Your task to perform on an android device: Open network settings Image 0: 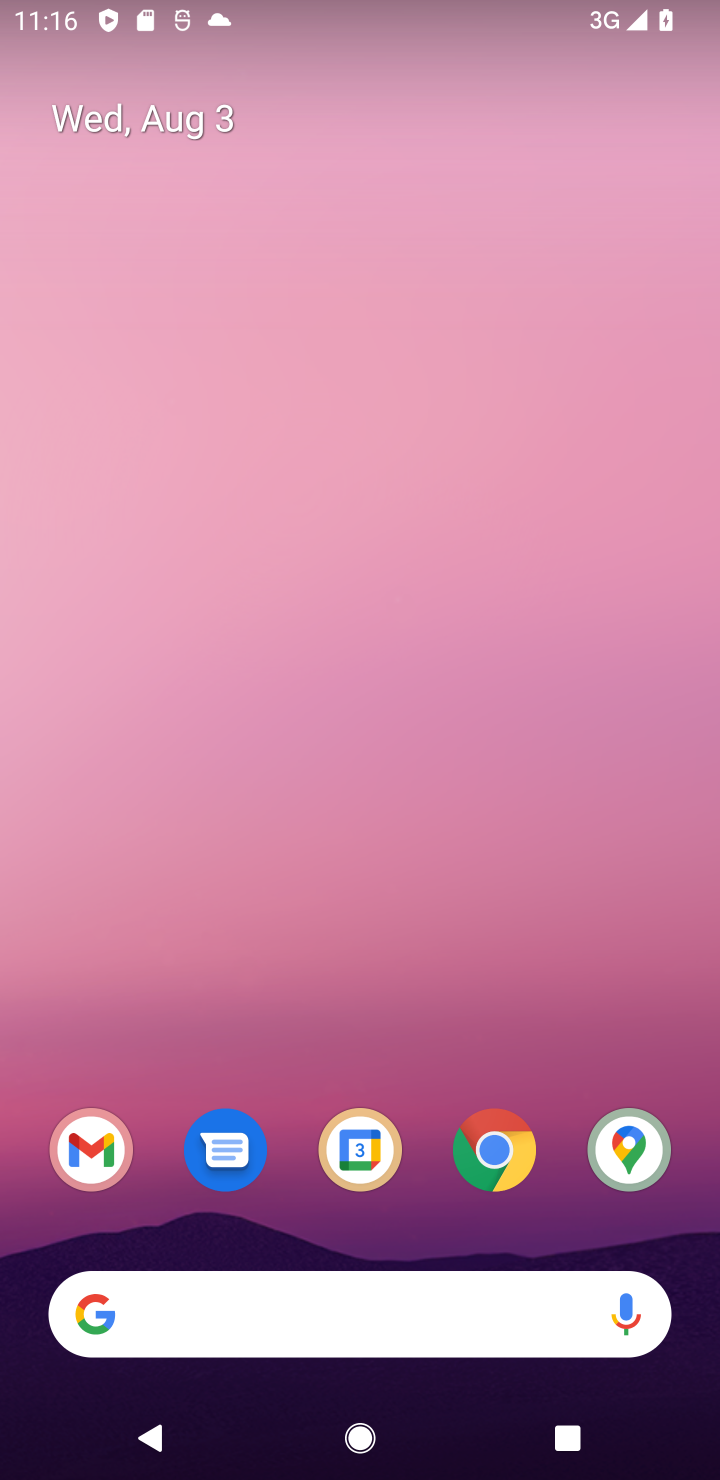
Step 0: press home button
Your task to perform on an android device: Open network settings Image 1: 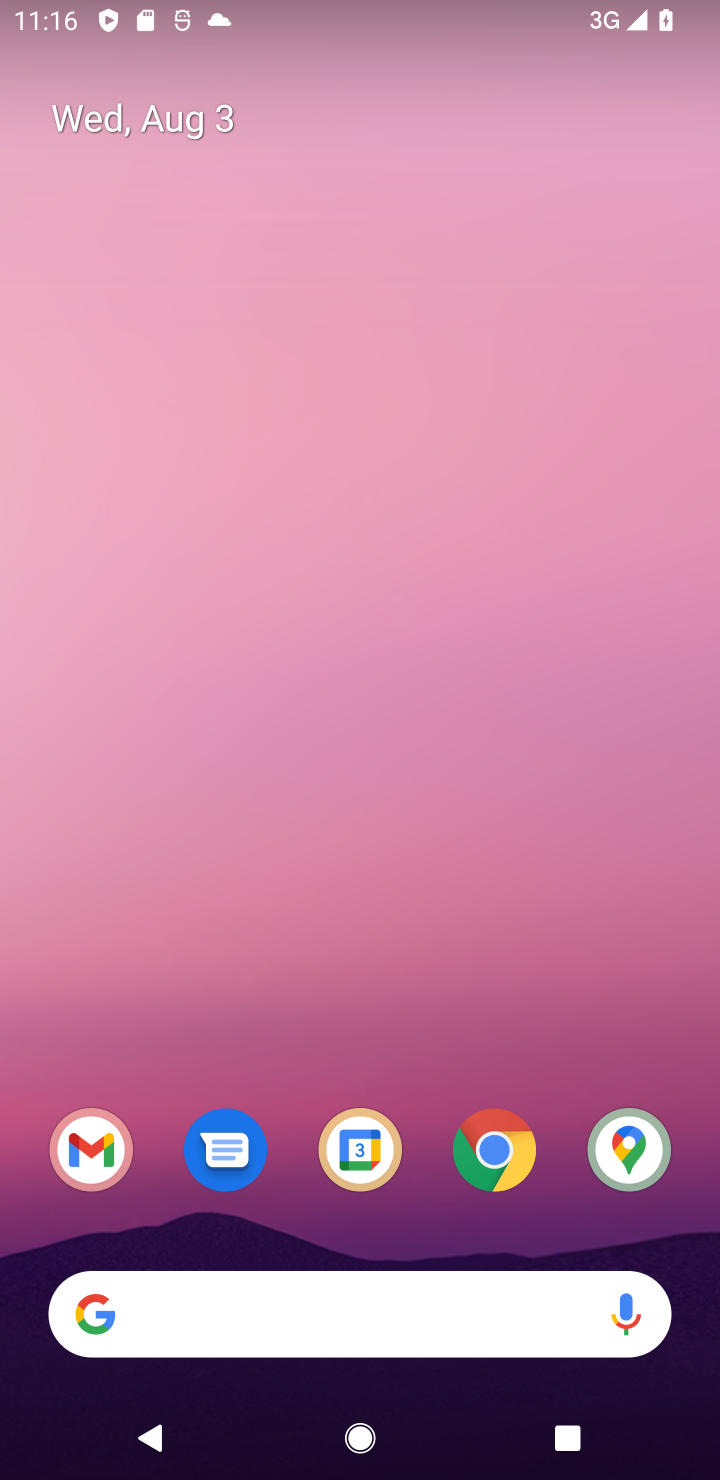
Step 1: drag from (555, 1143) to (572, 408)
Your task to perform on an android device: Open network settings Image 2: 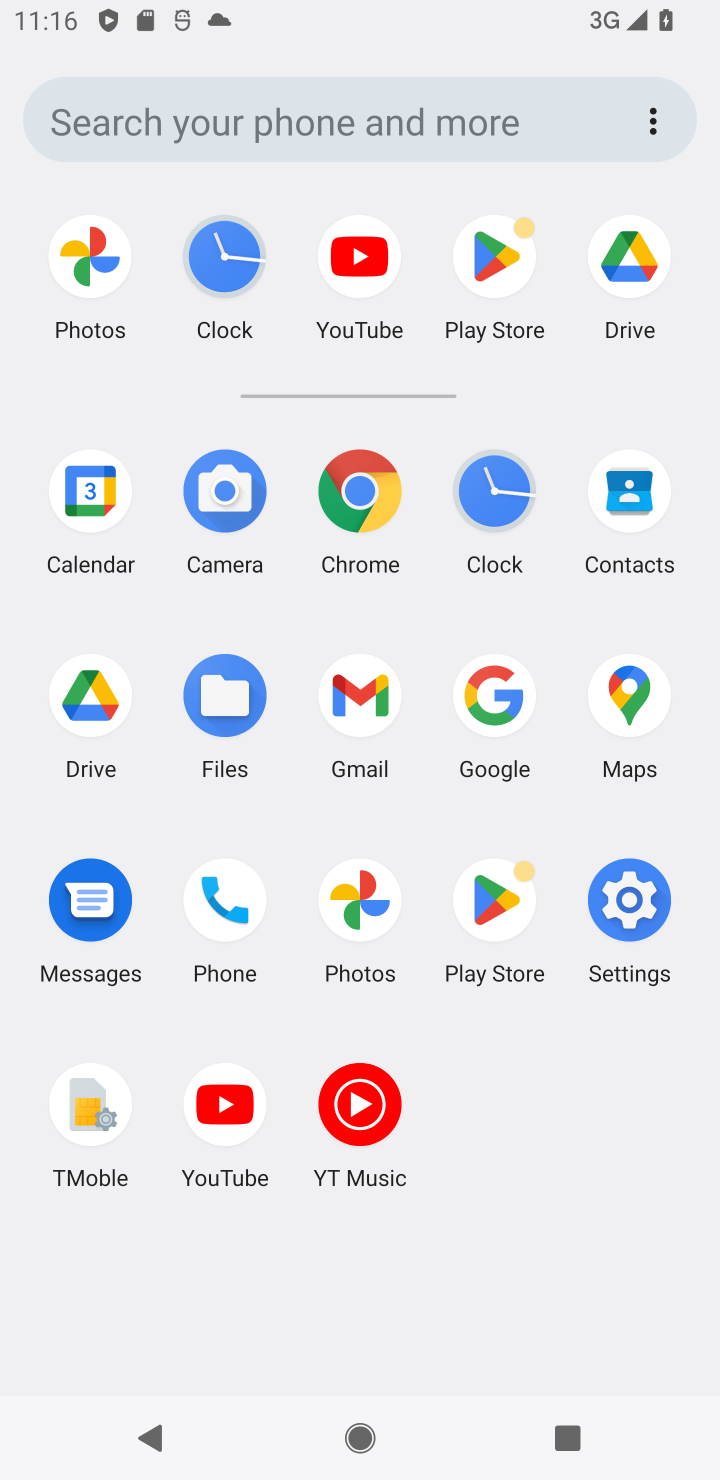
Step 2: click (624, 908)
Your task to perform on an android device: Open network settings Image 3: 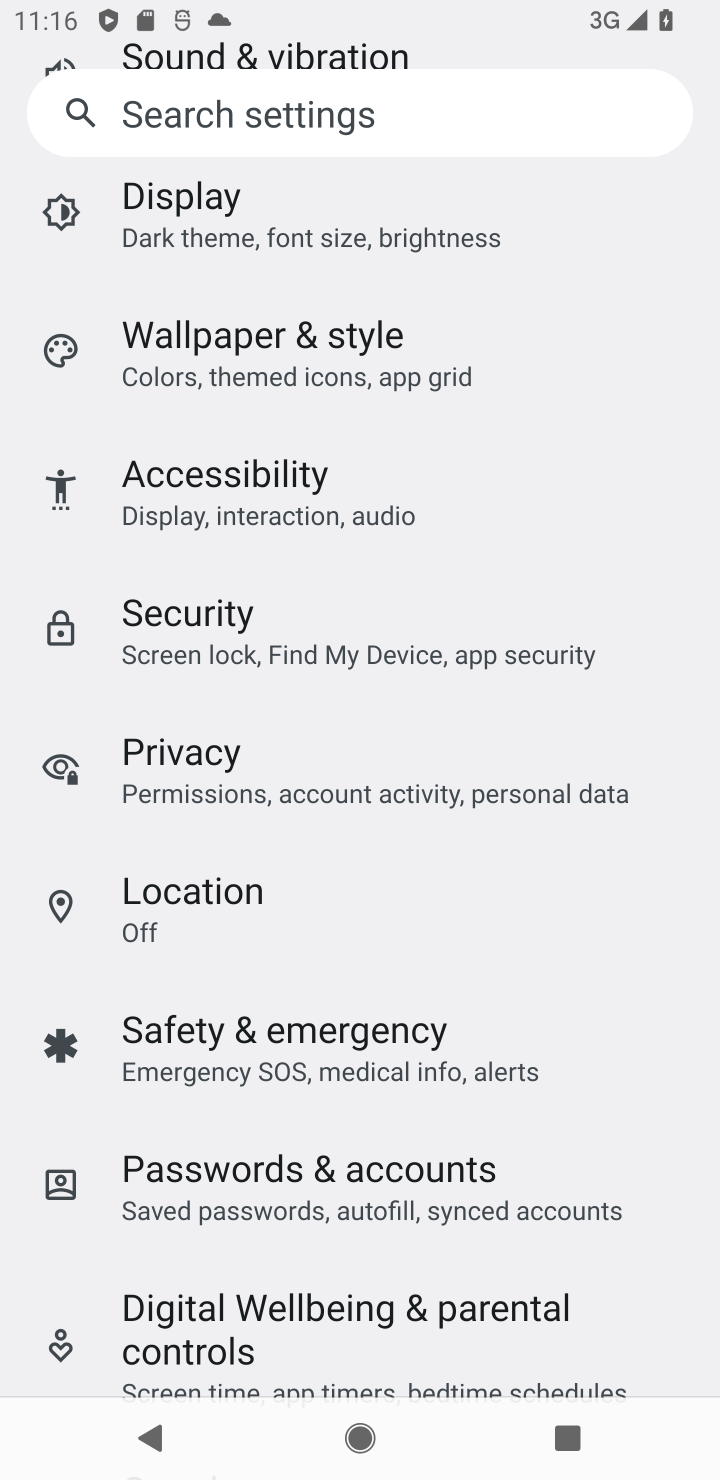
Step 3: drag from (645, 1271) to (656, 925)
Your task to perform on an android device: Open network settings Image 4: 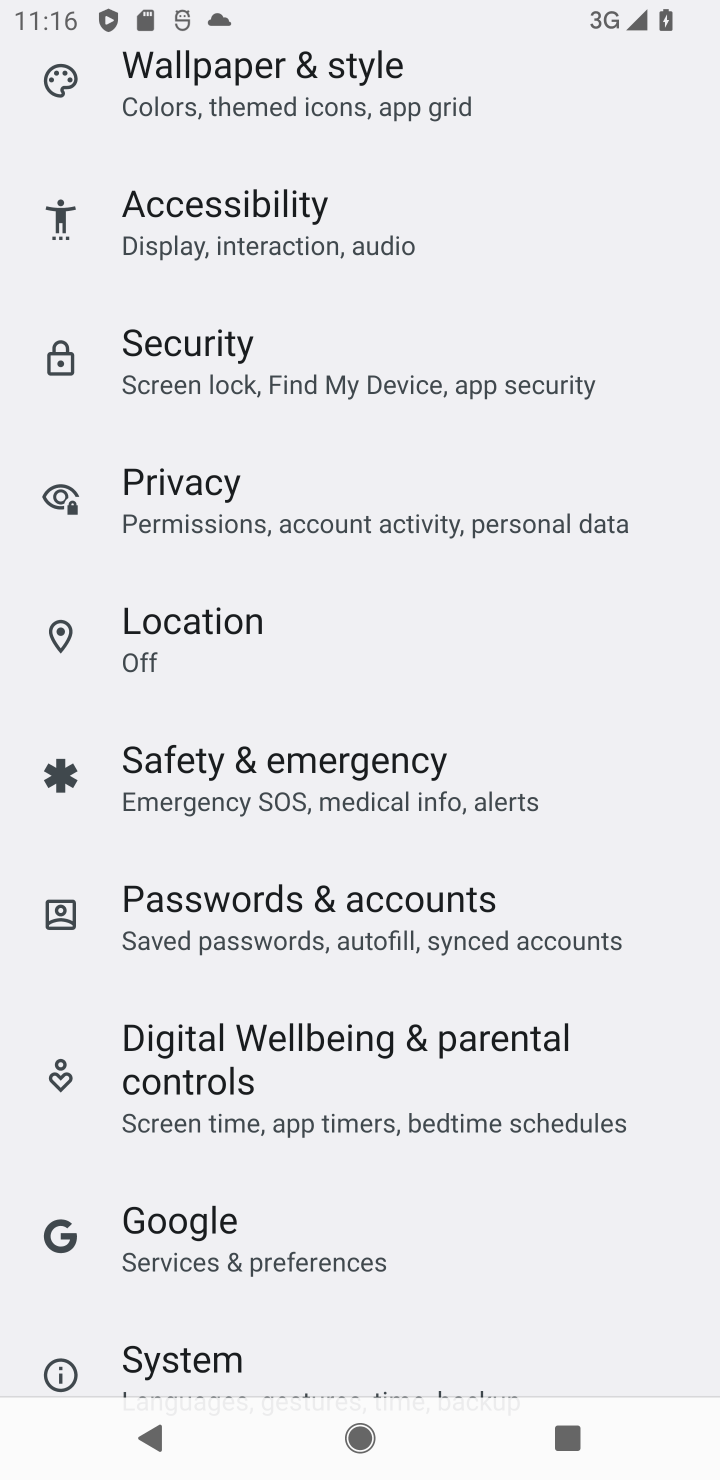
Step 4: drag from (623, 1205) to (661, 974)
Your task to perform on an android device: Open network settings Image 5: 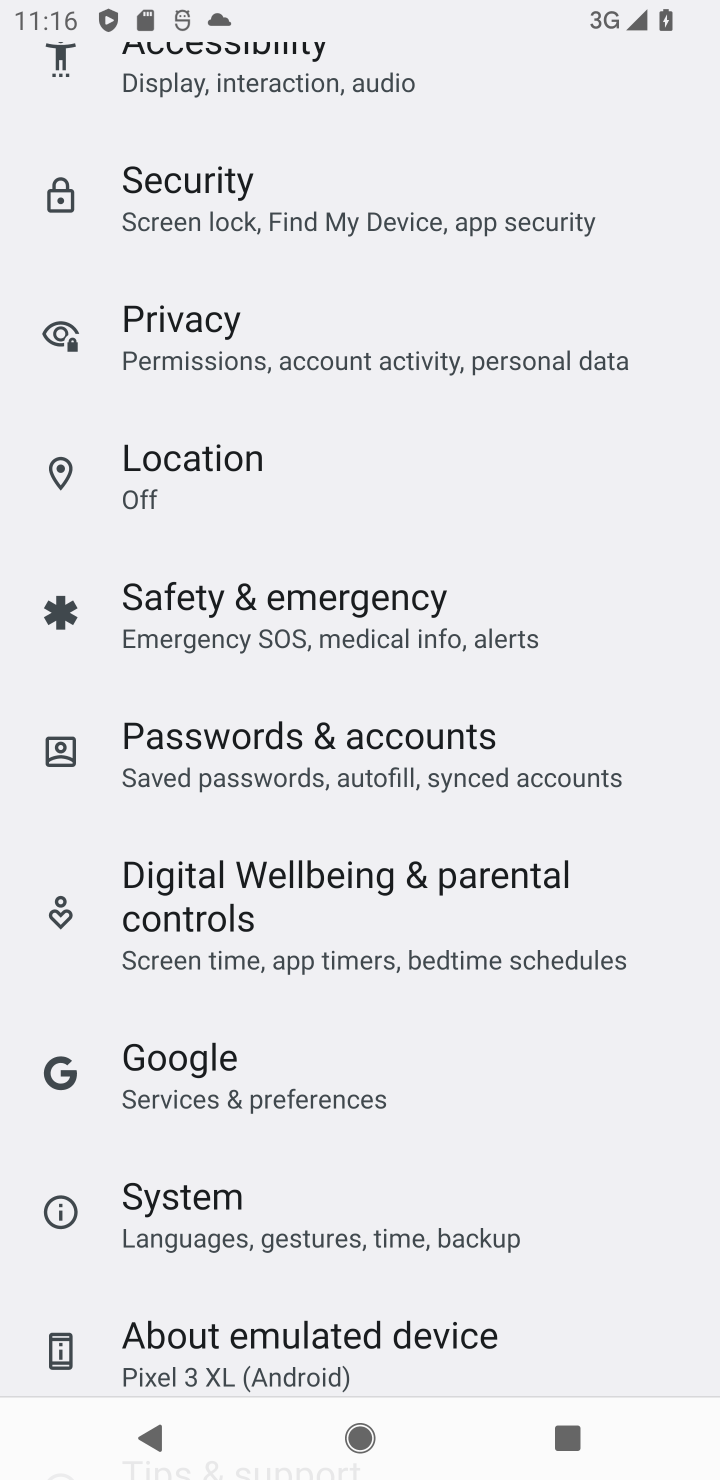
Step 5: drag from (607, 1268) to (597, 1009)
Your task to perform on an android device: Open network settings Image 6: 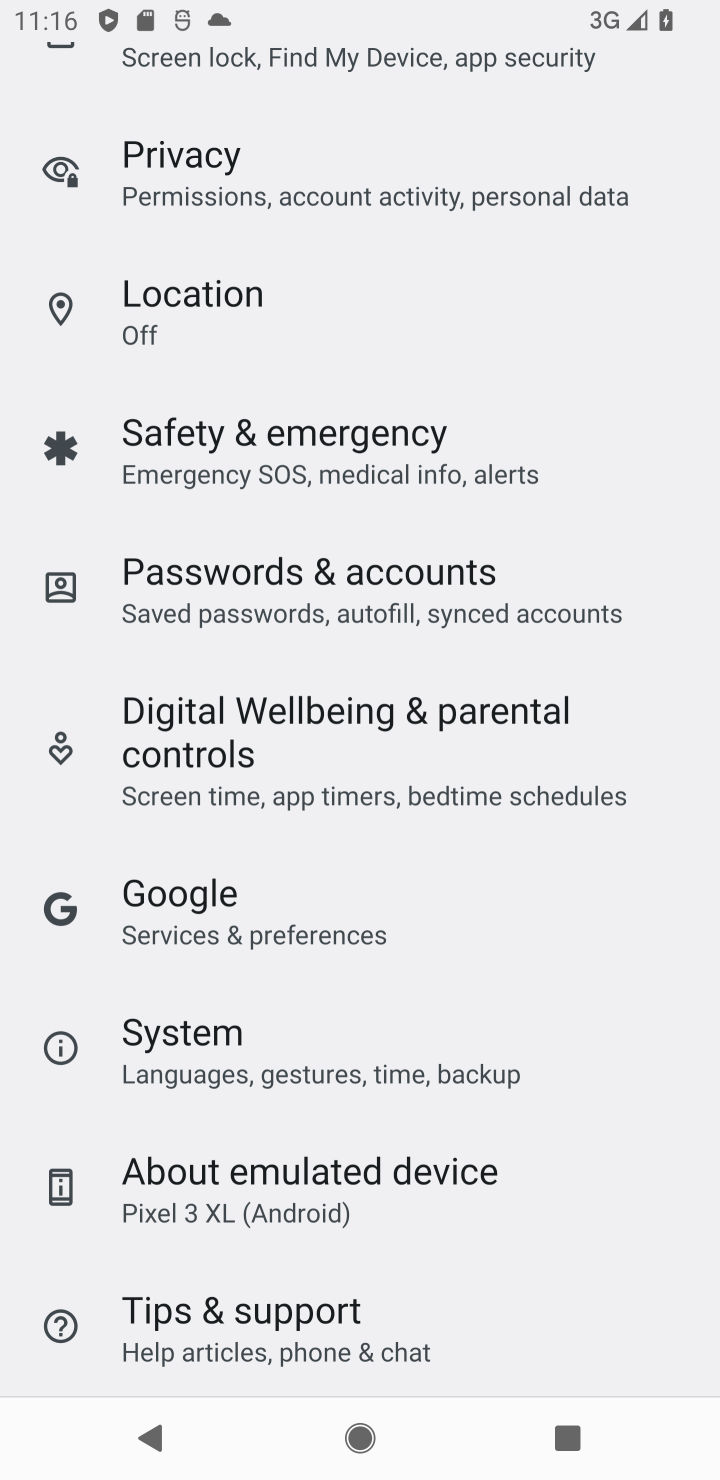
Step 6: drag from (597, 1269) to (602, 1017)
Your task to perform on an android device: Open network settings Image 7: 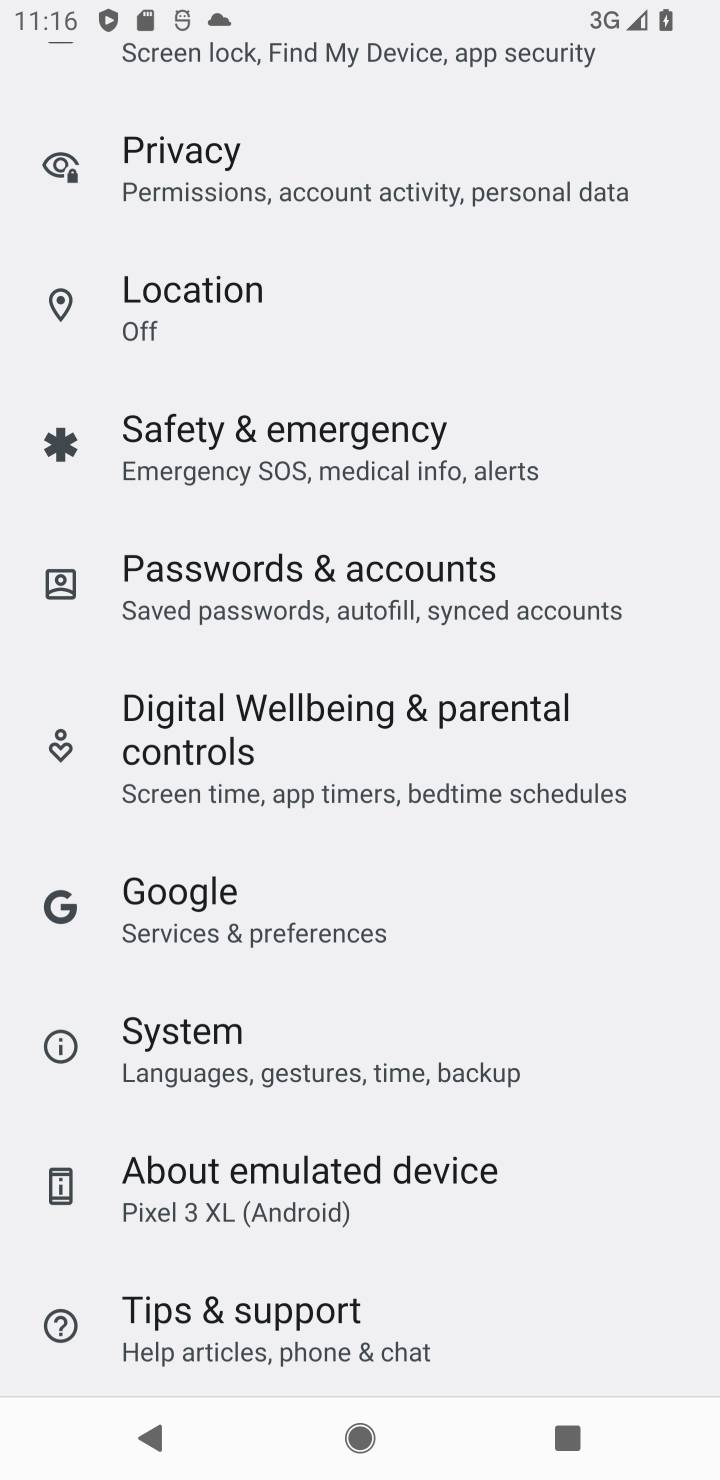
Step 7: drag from (626, 857) to (636, 1054)
Your task to perform on an android device: Open network settings Image 8: 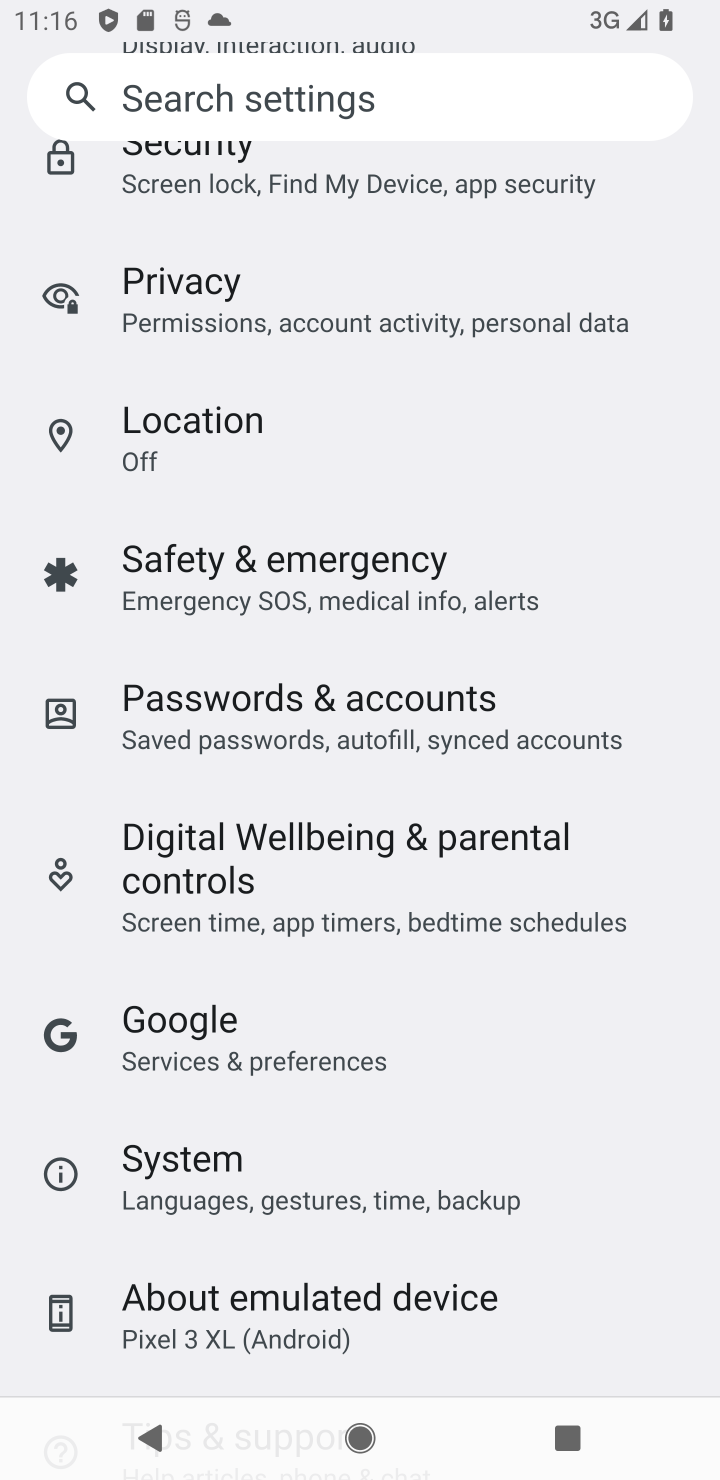
Step 8: drag from (646, 774) to (655, 1025)
Your task to perform on an android device: Open network settings Image 9: 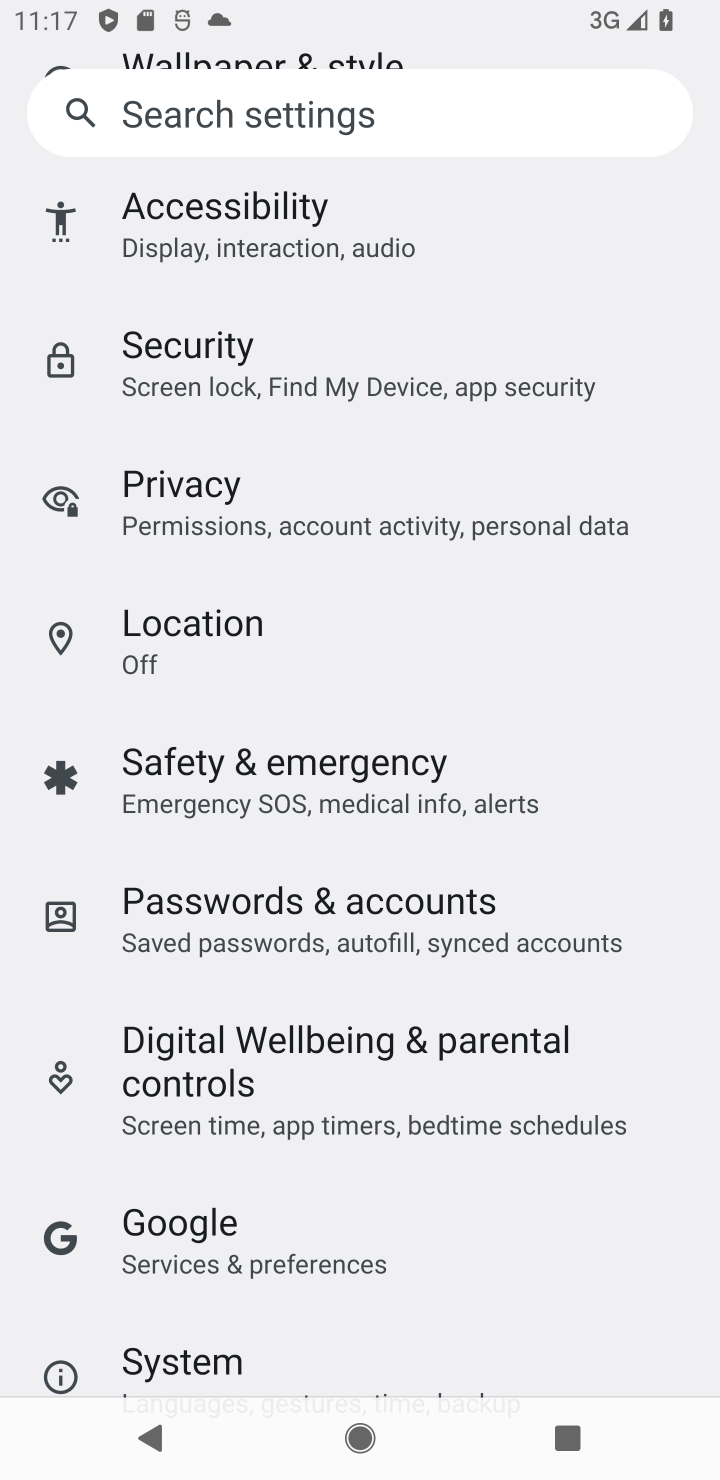
Step 9: drag from (627, 688) to (638, 891)
Your task to perform on an android device: Open network settings Image 10: 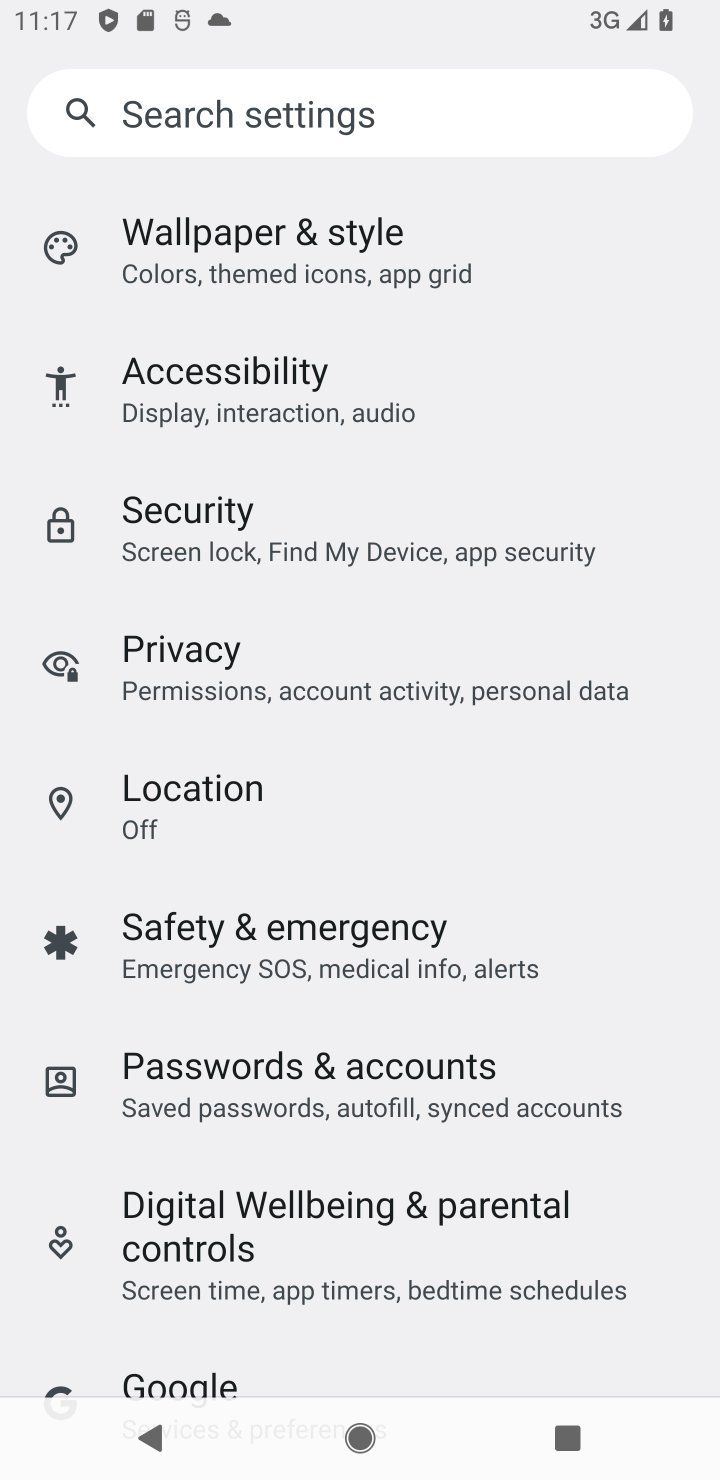
Step 10: drag from (630, 750) to (633, 998)
Your task to perform on an android device: Open network settings Image 11: 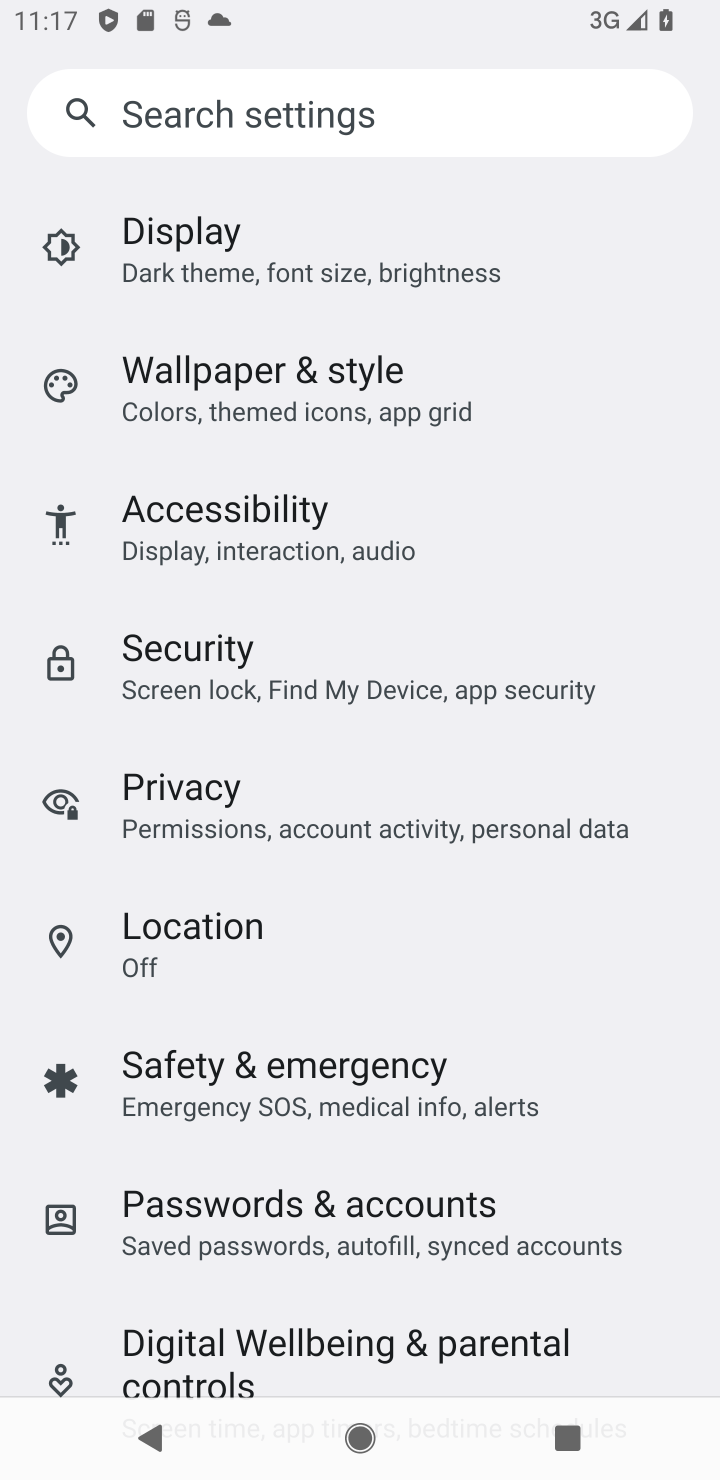
Step 11: drag from (621, 646) to (642, 875)
Your task to perform on an android device: Open network settings Image 12: 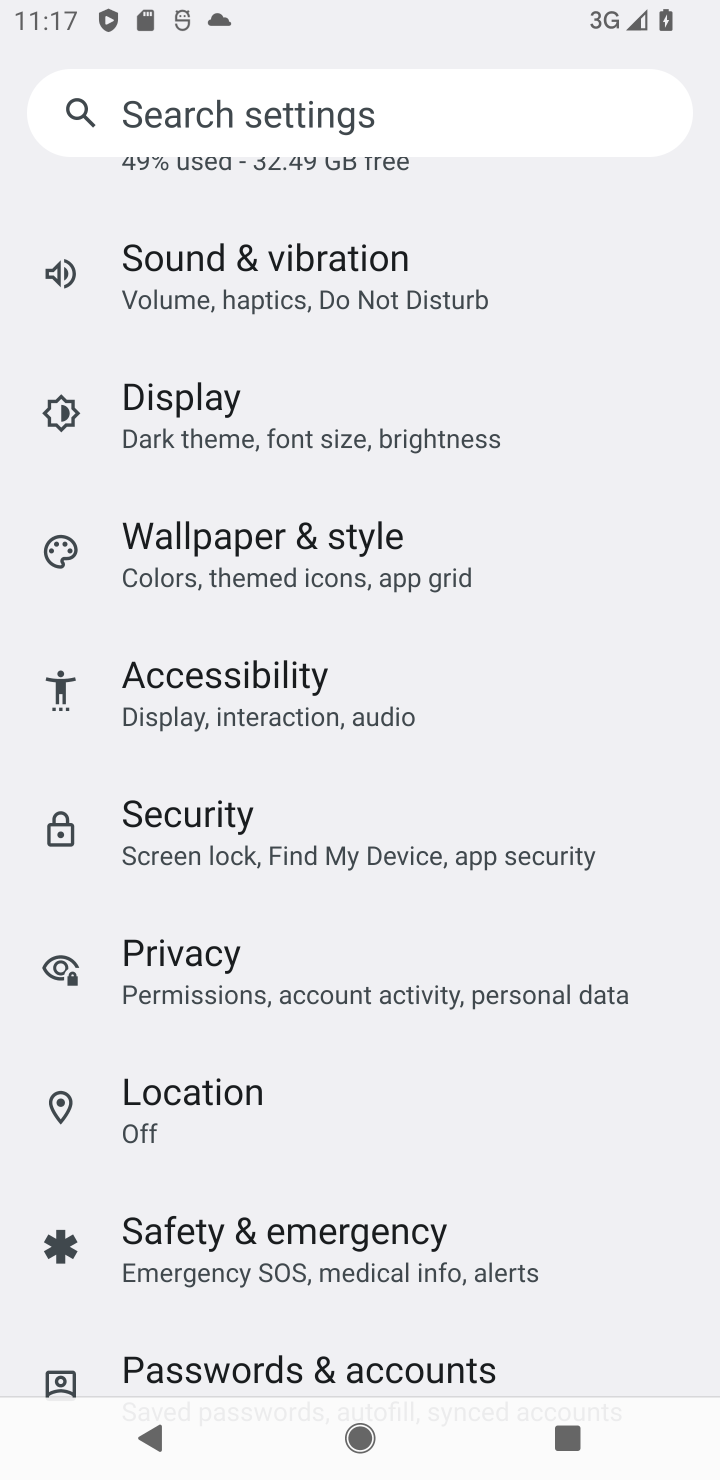
Step 12: drag from (642, 602) to (651, 869)
Your task to perform on an android device: Open network settings Image 13: 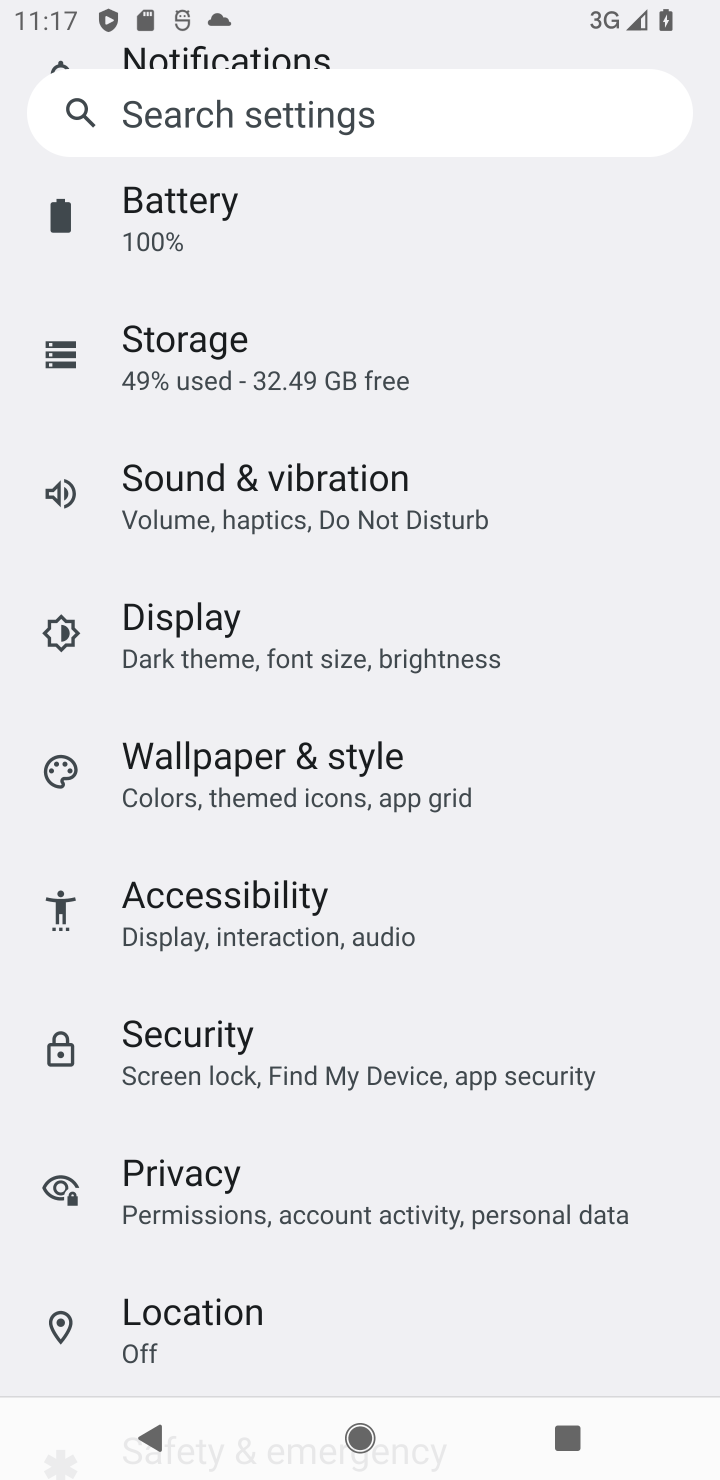
Step 13: drag from (596, 507) to (624, 822)
Your task to perform on an android device: Open network settings Image 14: 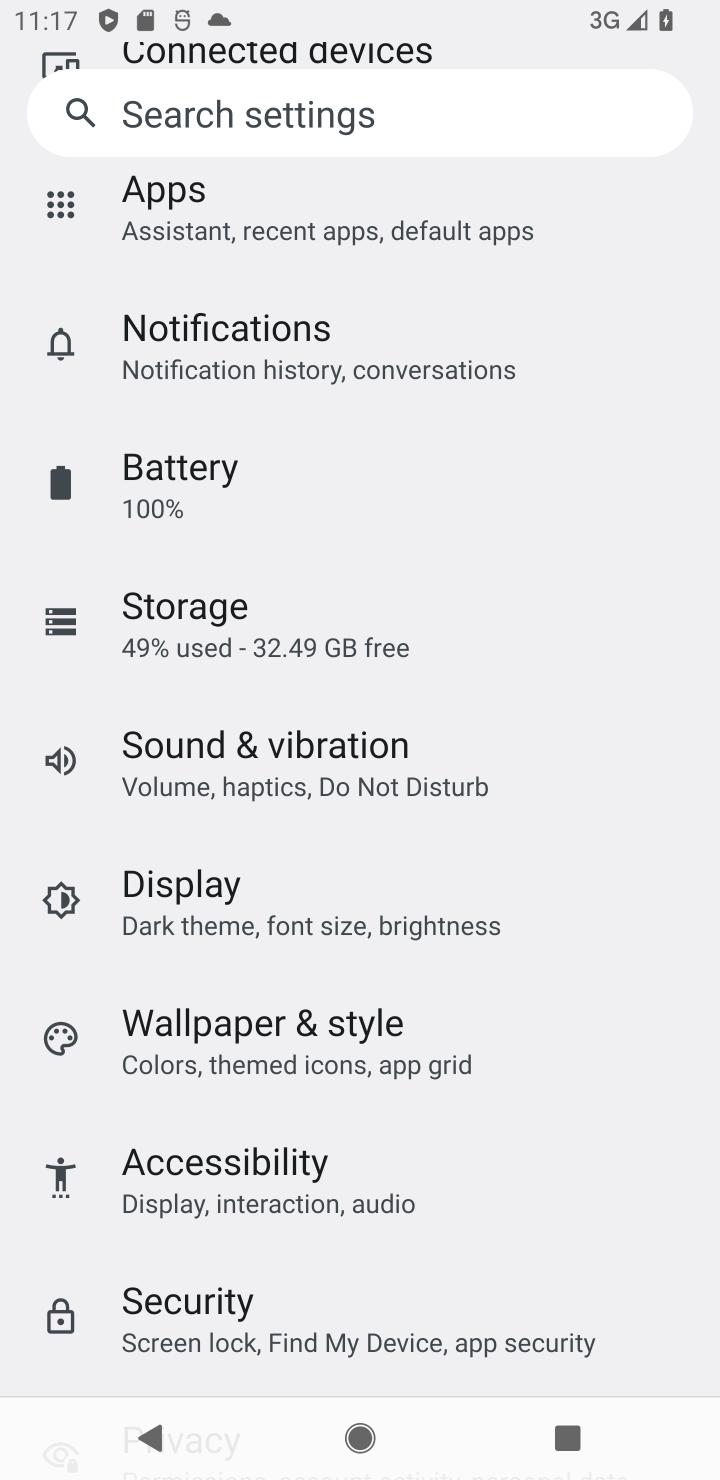
Step 14: drag from (581, 462) to (616, 822)
Your task to perform on an android device: Open network settings Image 15: 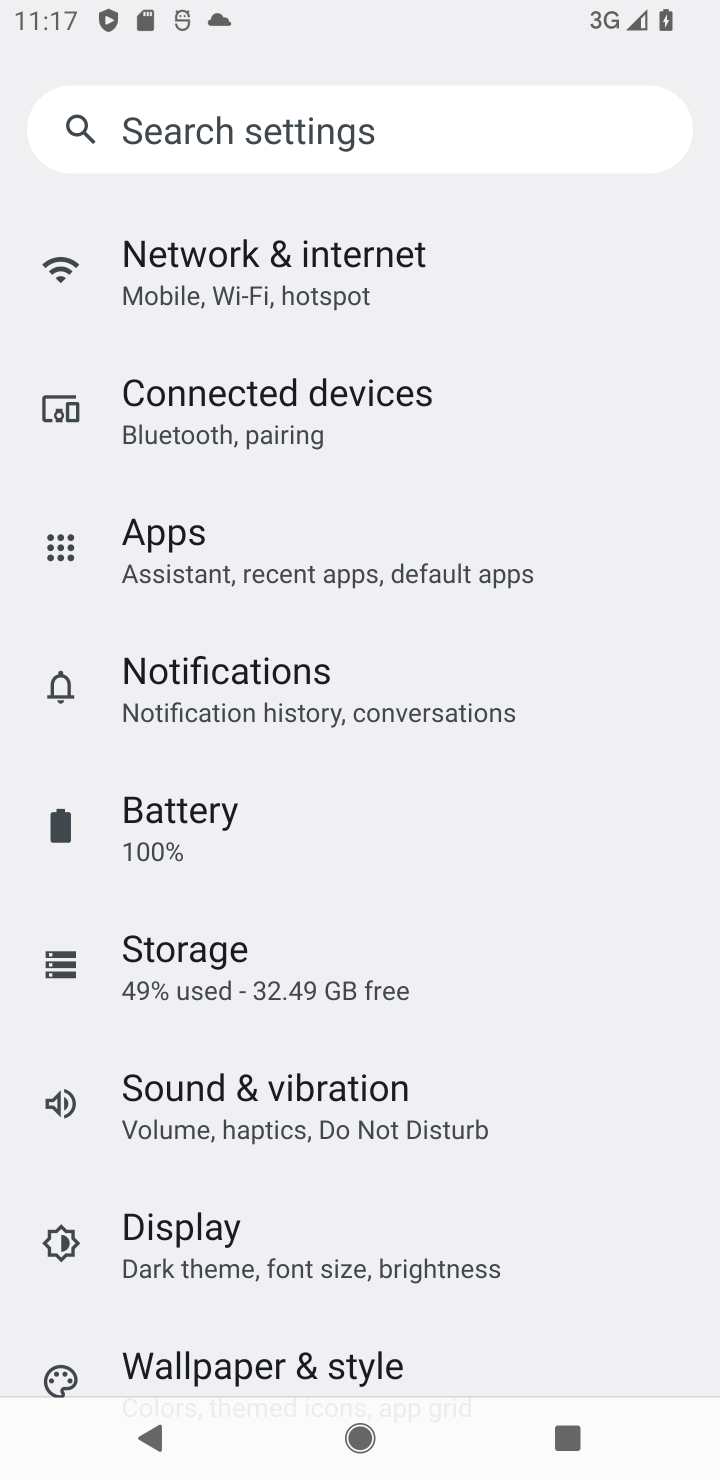
Step 15: drag from (582, 419) to (589, 845)
Your task to perform on an android device: Open network settings Image 16: 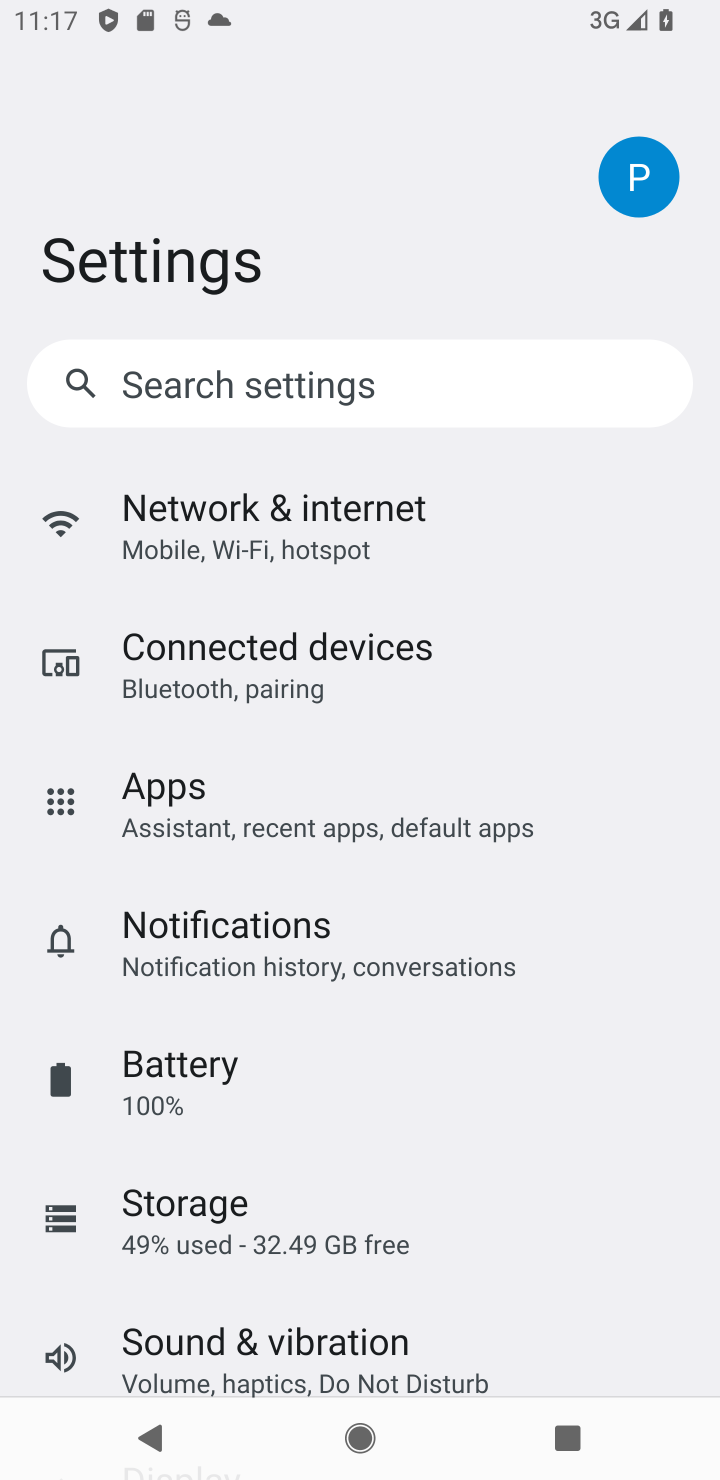
Step 16: drag from (588, 567) to (607, 908)
Your task to perform on an android device: Open network settings Image 17: 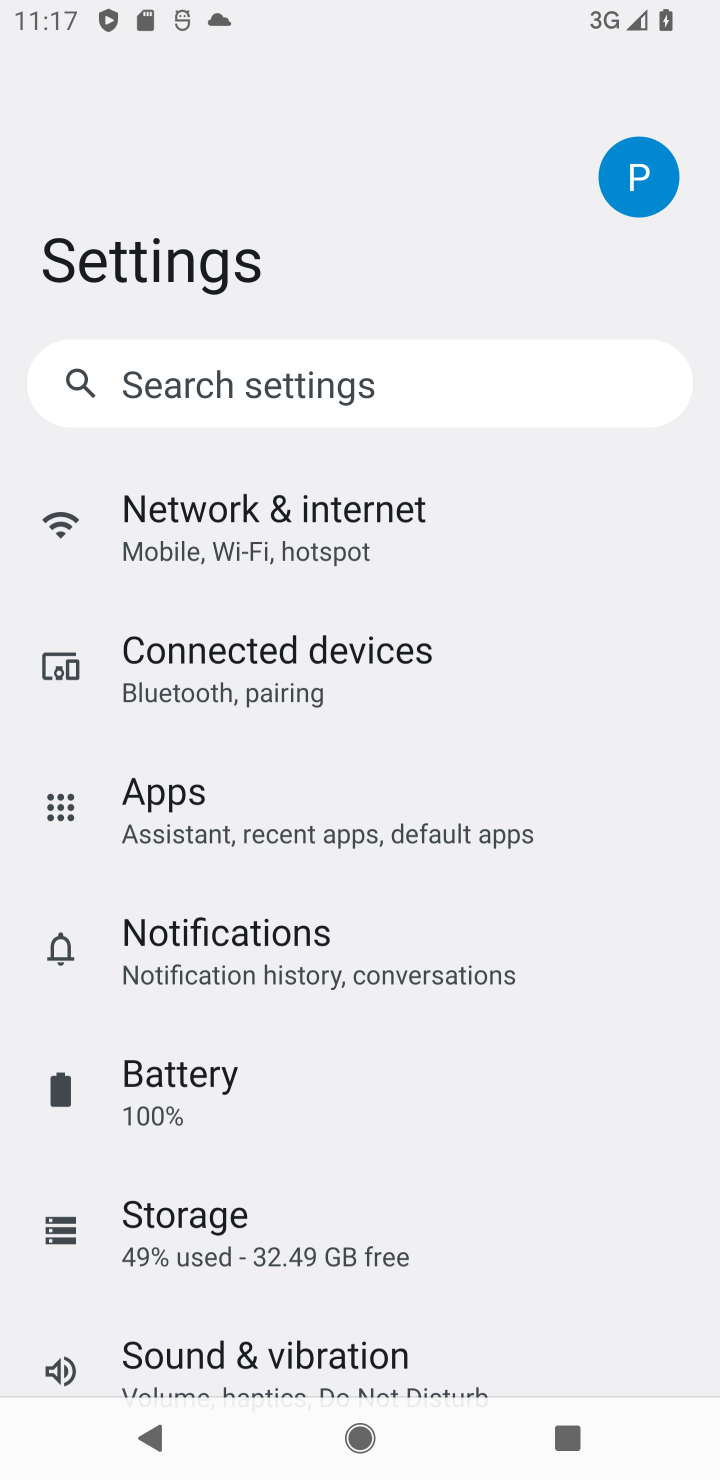
Step 17: click (433, 537)
Your task to perform on an android device: Open network settings Image 18: 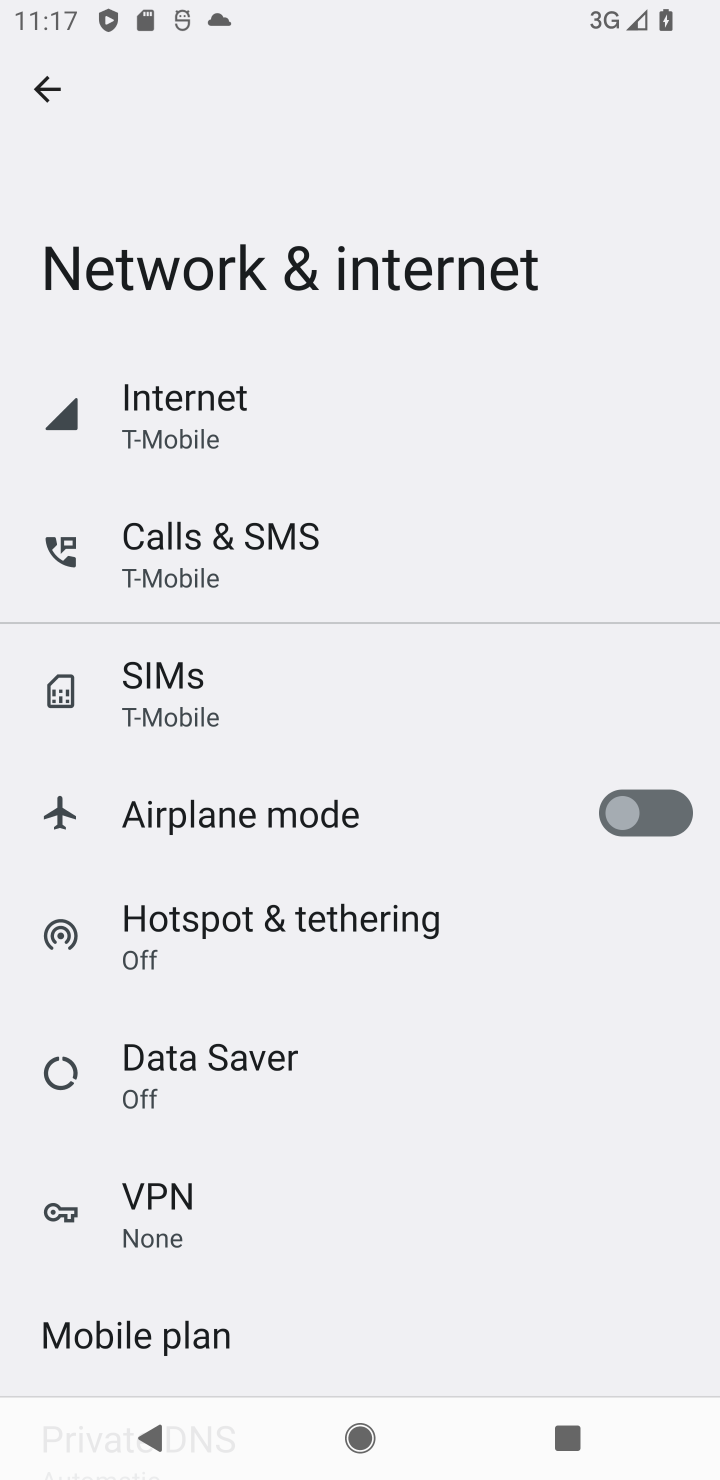
Step 18: task complete